Your task to perform on an android device: change the clock style Image 0: 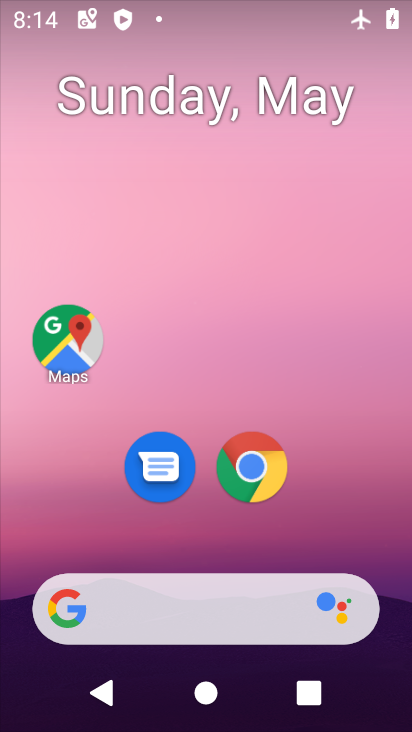
Step 0: drag from (211, 532) to (209, 89)
Your task to perform on an android device: change the clock style Image 1: 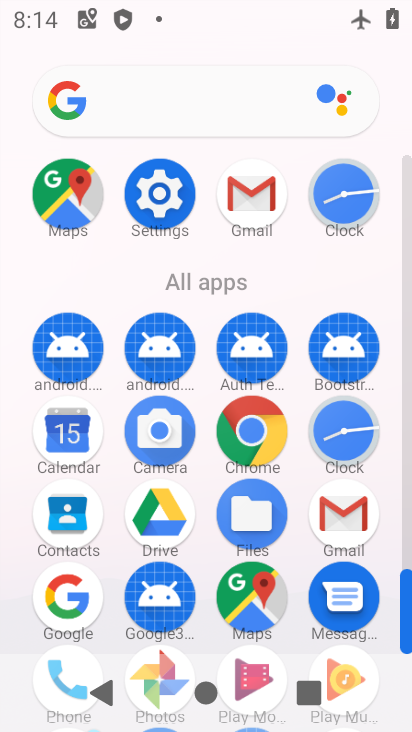
Step 1: click (352, 206)
Your task to perform on an android device: change the clock style Image 2: 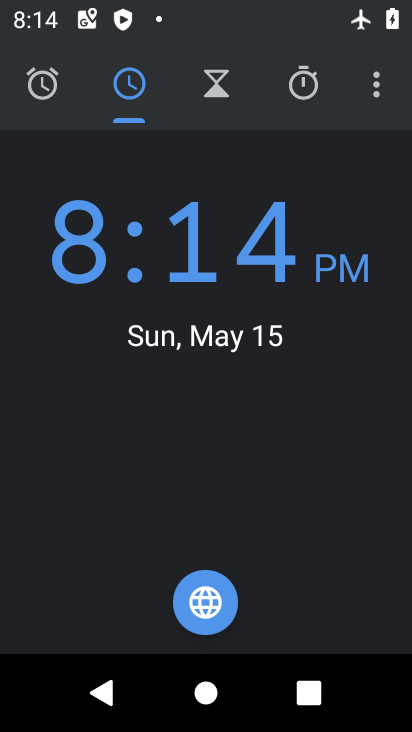
Step 2: click (397, 93)
Your task to perform on an android device: change the clock style Image 3: 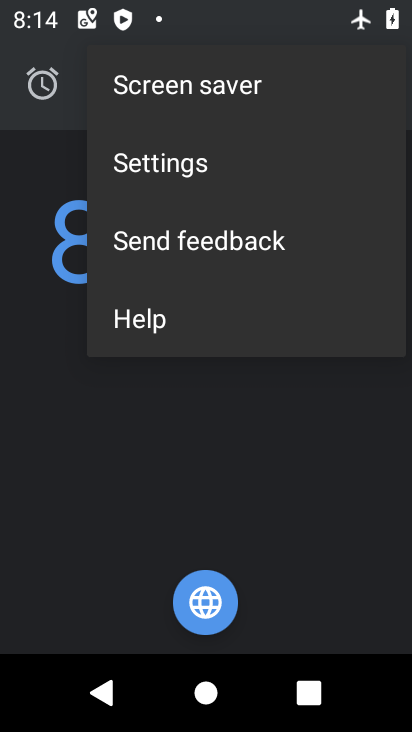
Step 3: click (234, 142)
Your task to perform on an android device: change the clock style Image 4: 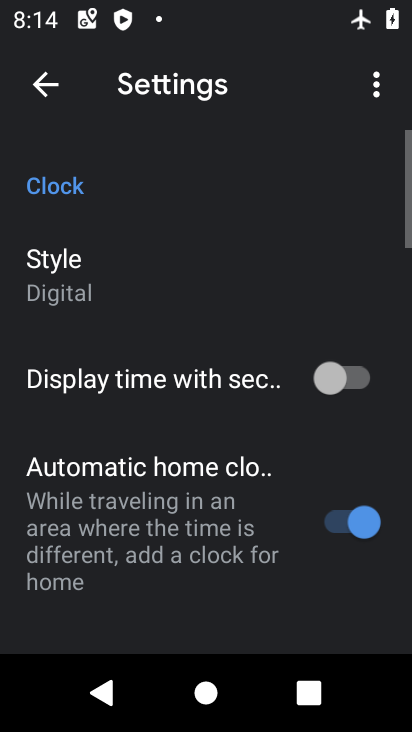
Step 4: click (89, 277)
Your task to perform on an android device: change the clock style Image 5: 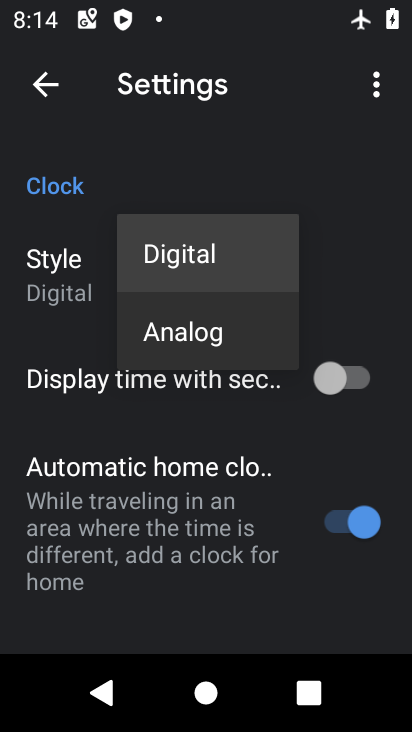
Step 5: click (170, 323)
Your task to perform on an android device: change the clock style Image 6: 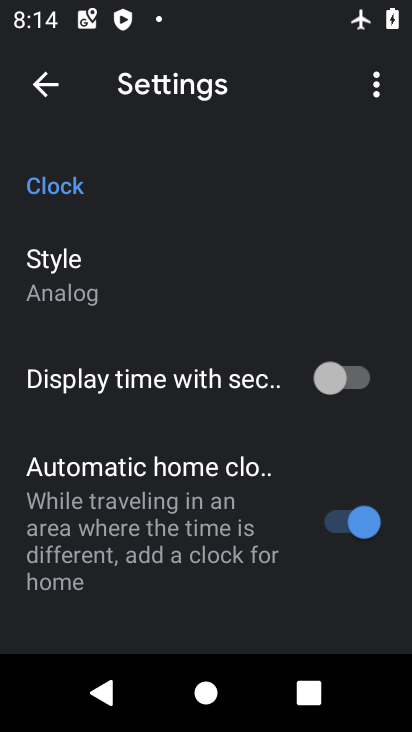
Step 6: task complete